Your task to perform on an android device: Add bose soundlink mini to the cart on walmart.com, then select checkout. Image 0: 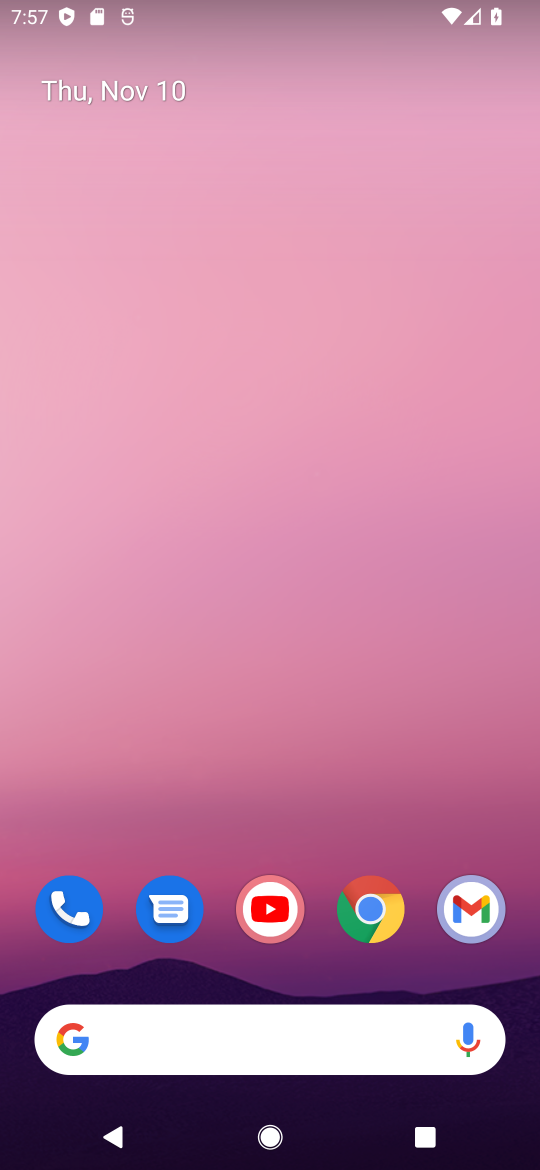
Step 0: drag from (284, 858) to (295, 343)
Your task to perform on an android device: Add bose soundlink mini to the cart on walmart.com, then select checkout. Image 1: 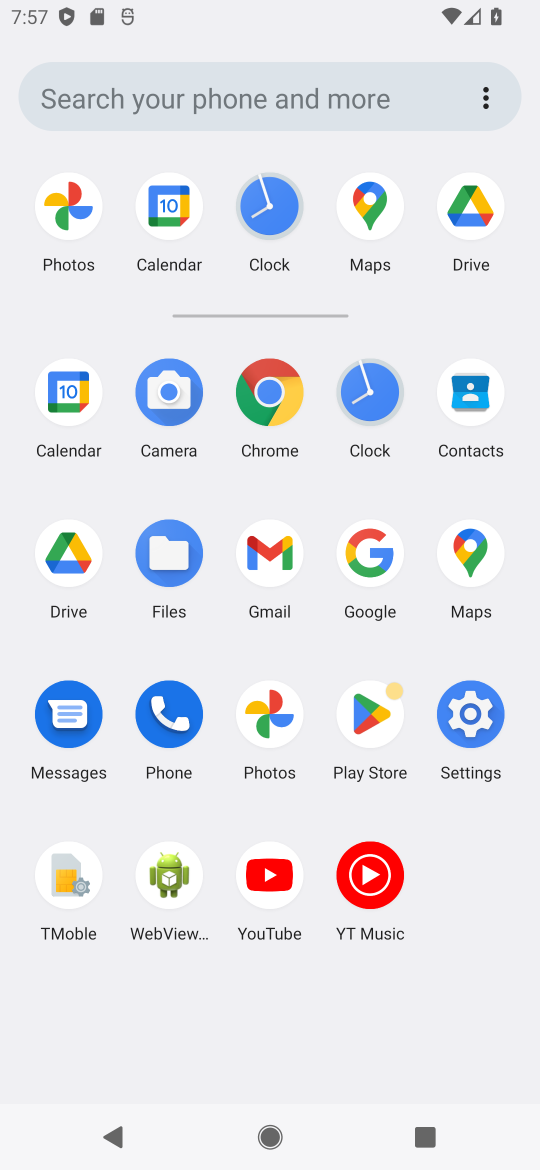
Step 1: click (362, 547)
Your task to perform on an android device: Add bose soundlink mini to the cart on walmart.com, then select checkout. Image 2: 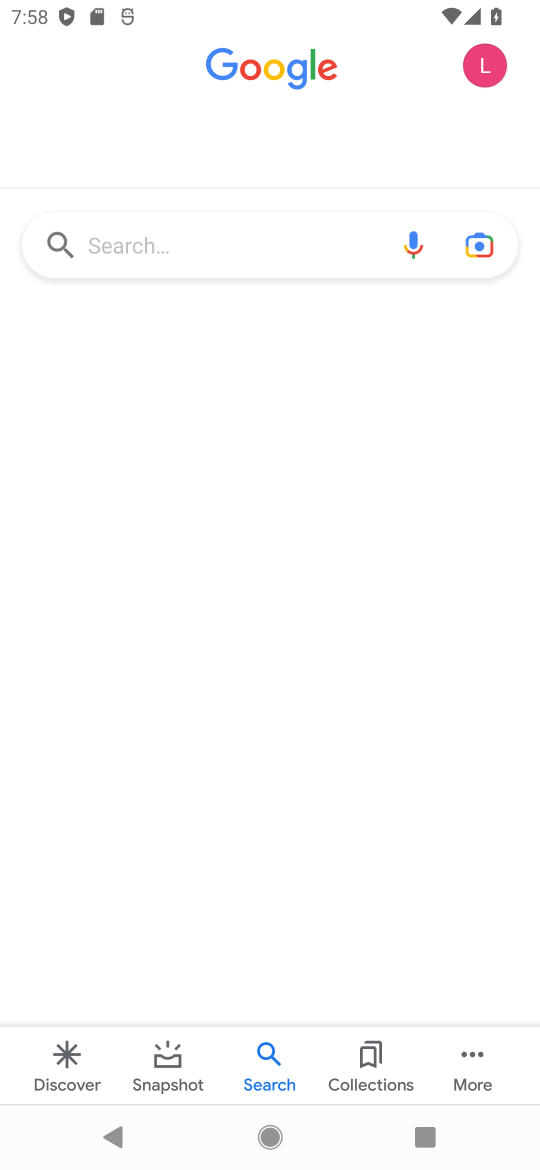
Step 2: click (232, 236)
Your task to perform on an android device: Add bose soundlink mini to the cart on walmart.com, then select checkout. Image 3: 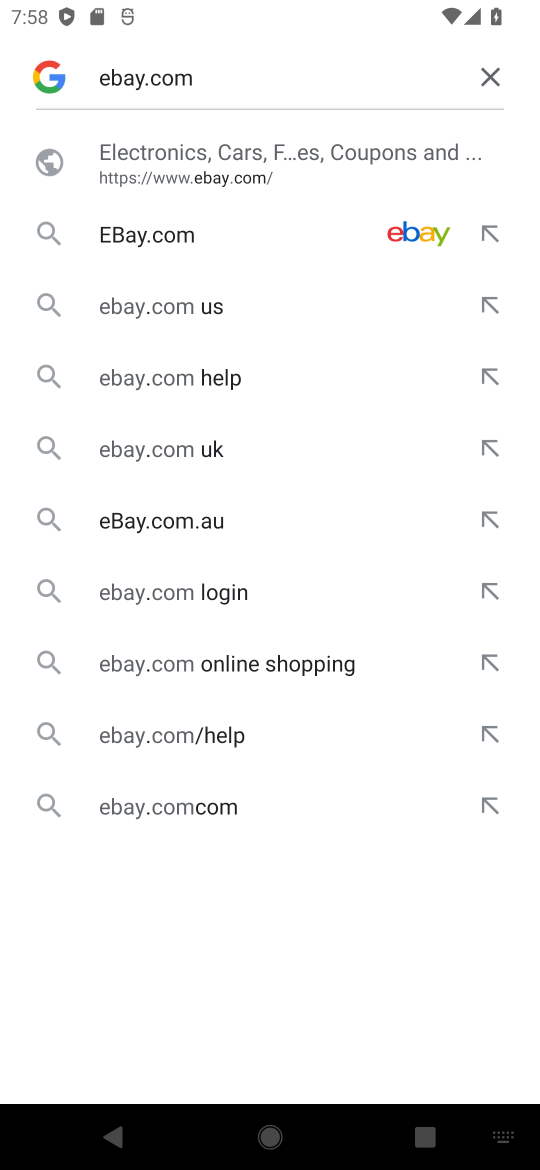
Step 3: type "walmart "
Your task to perform on an android device: Add bose soundlink mini to the cart on walmart.com, then select checkout. Image 4: 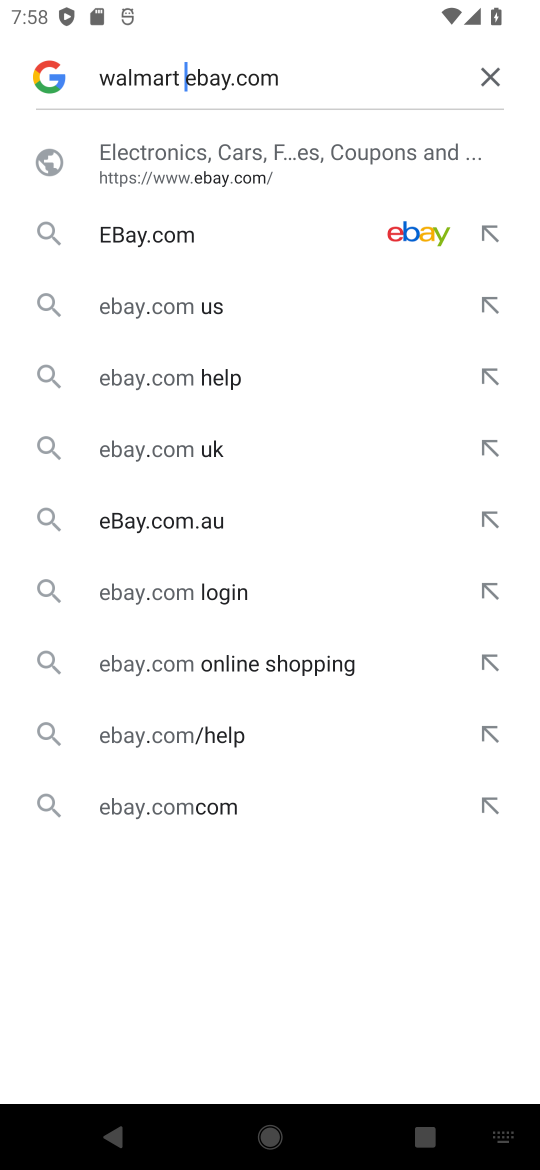
Step 4: click (506, 72)
Your task to perform on an android device: Add bose soundlink mini to the cart on walmart.com, then select checkout. Image 5: 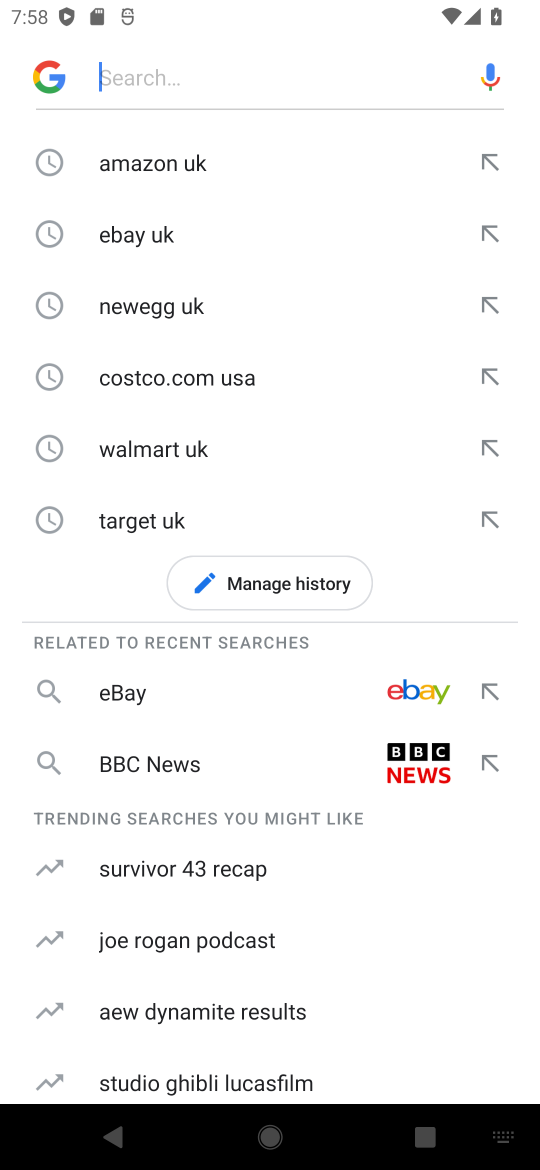
Step 5: click (209, 49)
Your task to perform on an android device: Add bose soundlink mini to the cart on walmart.com, then select checkout. Image 6: 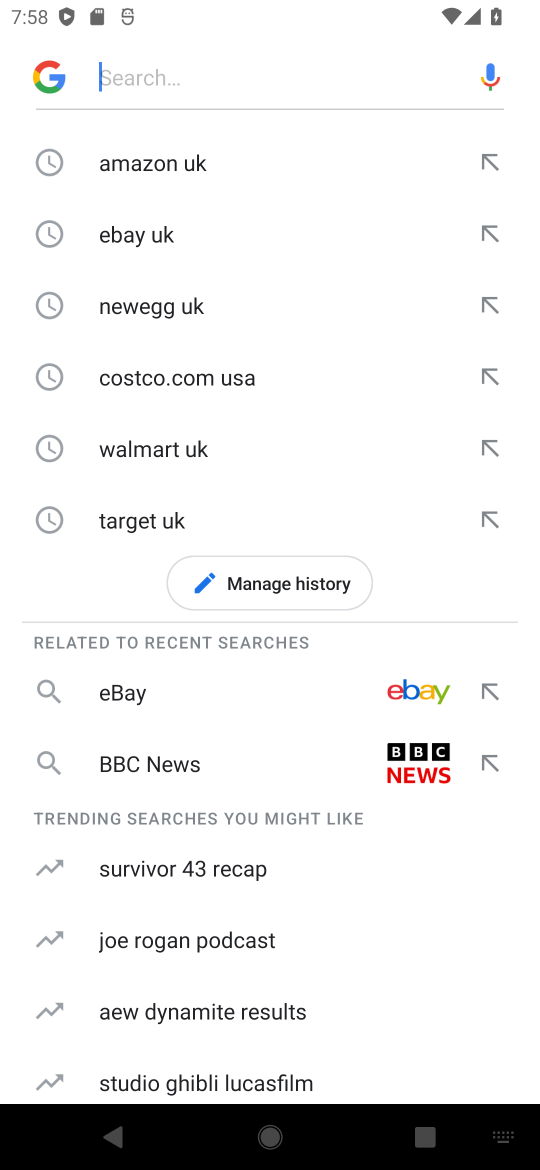
Step 6: type "walmart "
Your task to perform on an android device: Add bose soundlink mini to the cart on walmart.com, then select checkout. Image 7: 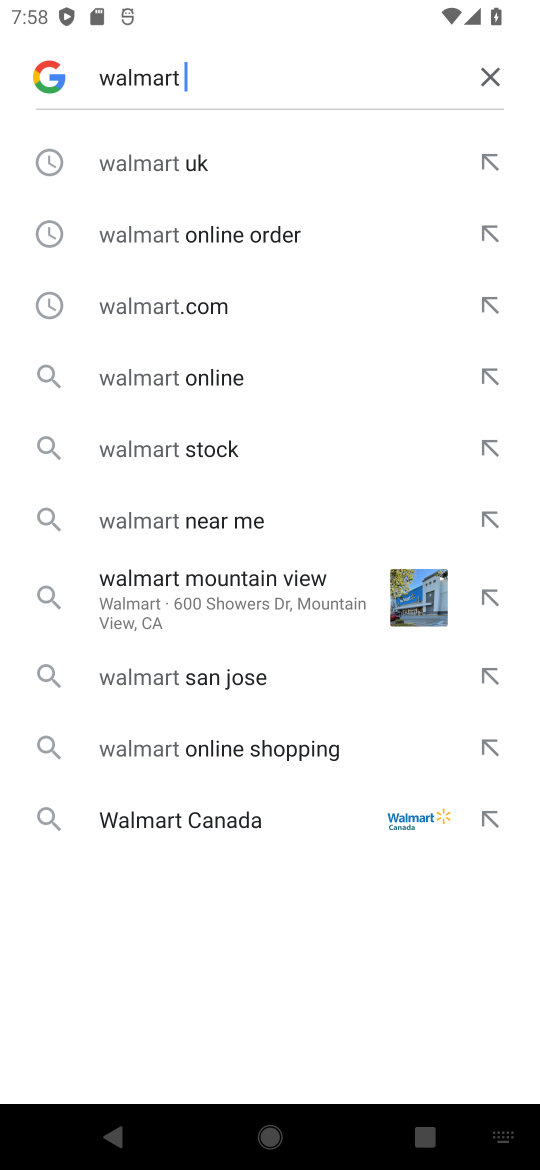
Step 7: click (142, 167)
Your task to perform on an android device: Add bose soundlink mini to the cart on walmart.com, then select checkout. Image 8: 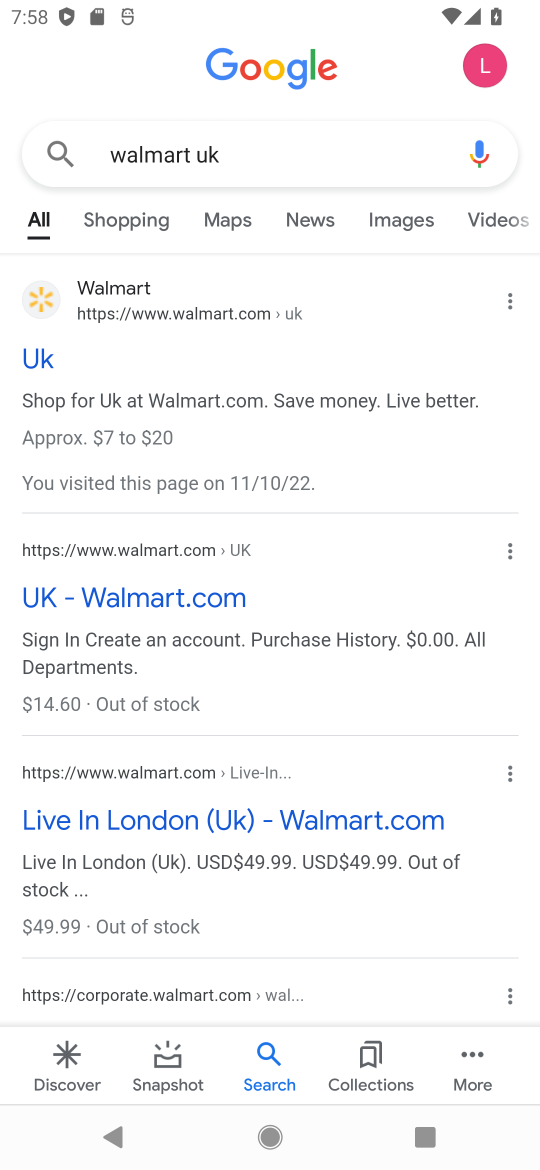
Step 8: click (25, 351)
Your task to perform on an android device: Add bose soundlink mini to the cart on walmart.com, then select checkout. Image 9: 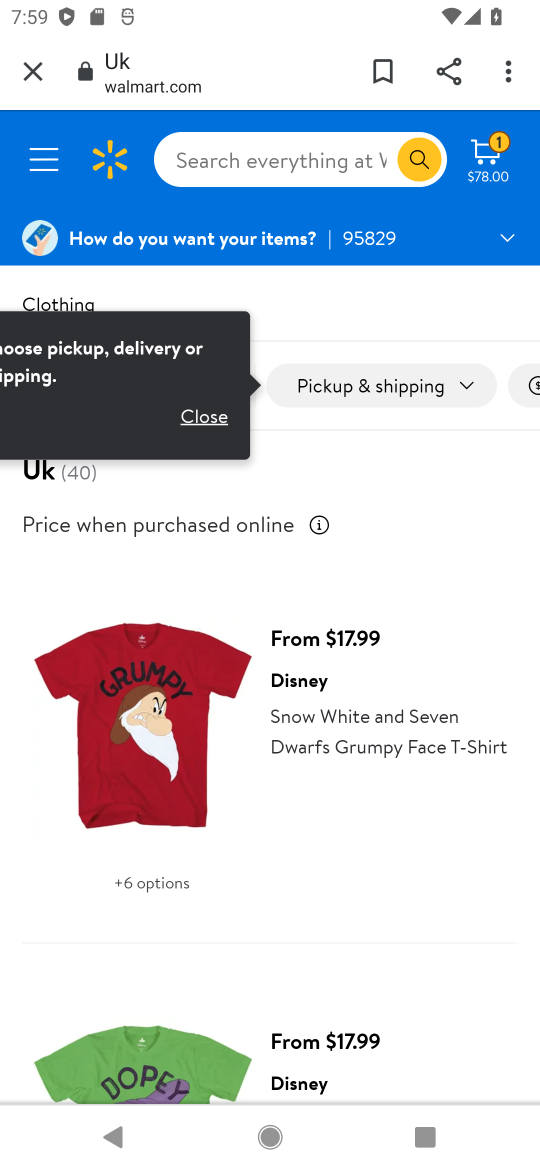
Step 9: click (262, 158)
Your task to perform on an android device: Add bose soundlink mini to the cart on walmart.com, then select checkout. Image 10: 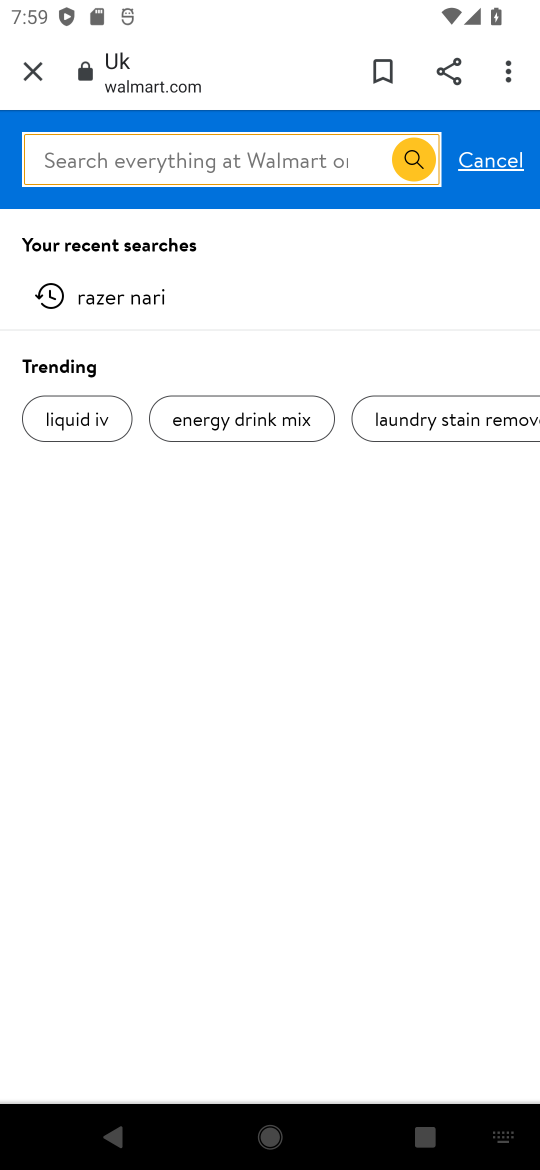
Step 10: click (211, 147)
Your task to perform on an android device: Add bose soundlink mini to the cart on walmart.com, then select checkout. Image 11: 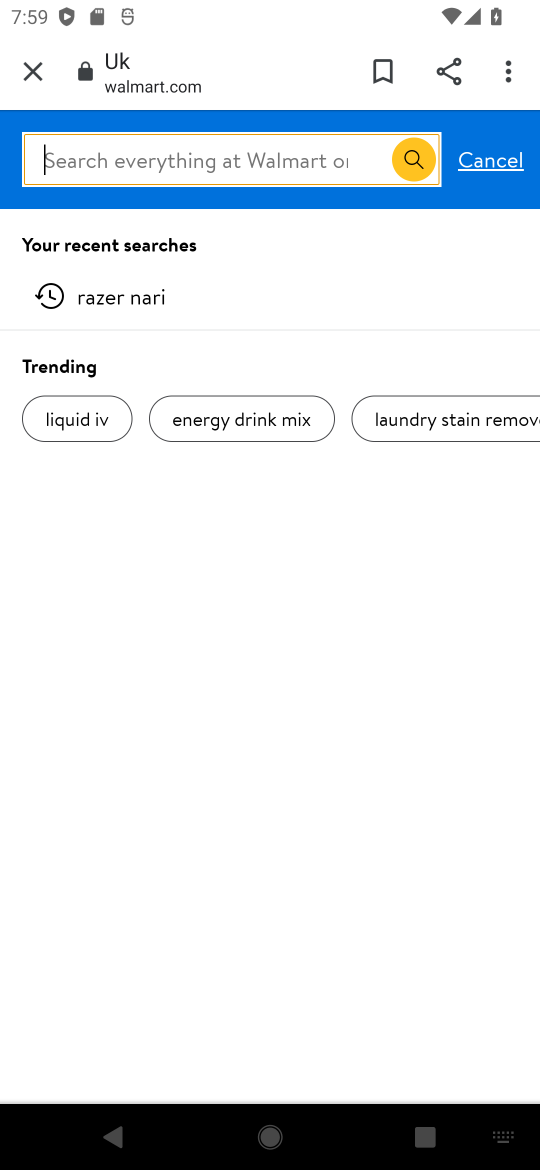
Step 11: type " bose soundlink mini  "
Your task to perform on an android device: Add bose soundlink mini to the cart on walmart.com, then select checkout. Image 12: 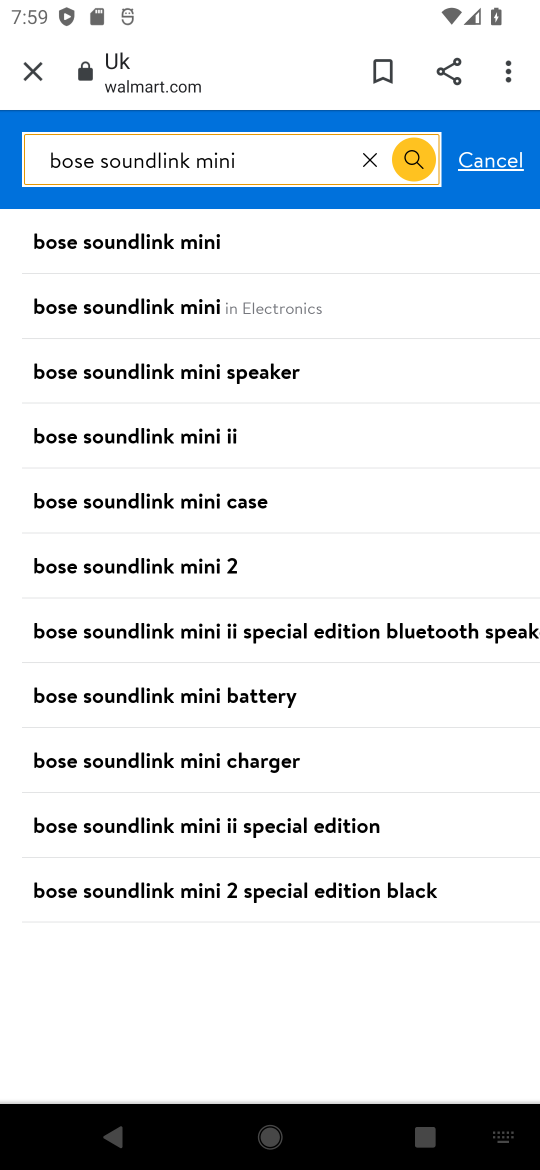
Step 12: click (244, 222)
Your task to perform on an android device: Add bose soundlink mini to the cart on walmart.com, then select checkout. Image 13: 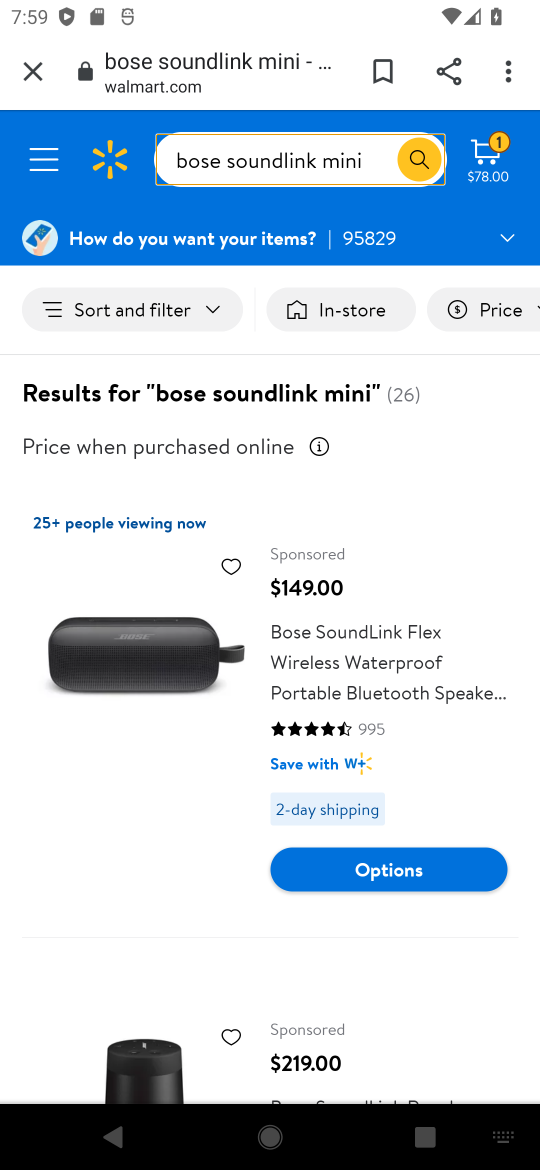
Step 13: drag from (340, 752) to (333, 354)
Your task to perform on an android device: Add bose soundlink mini to the cart on walmart.com, then select checkout. Image 14: 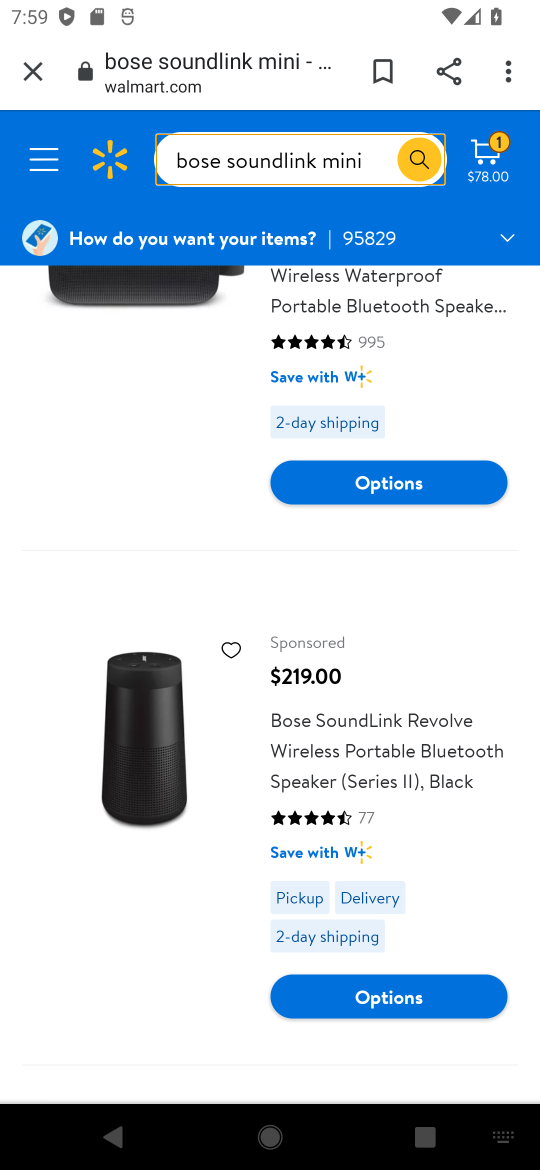
Step 14: drag from (361, 969) to (340, 712)
Your task to perform on an android device: Add bose soundlink mini to the cart on walmart.com, then select checkout. Image 15: 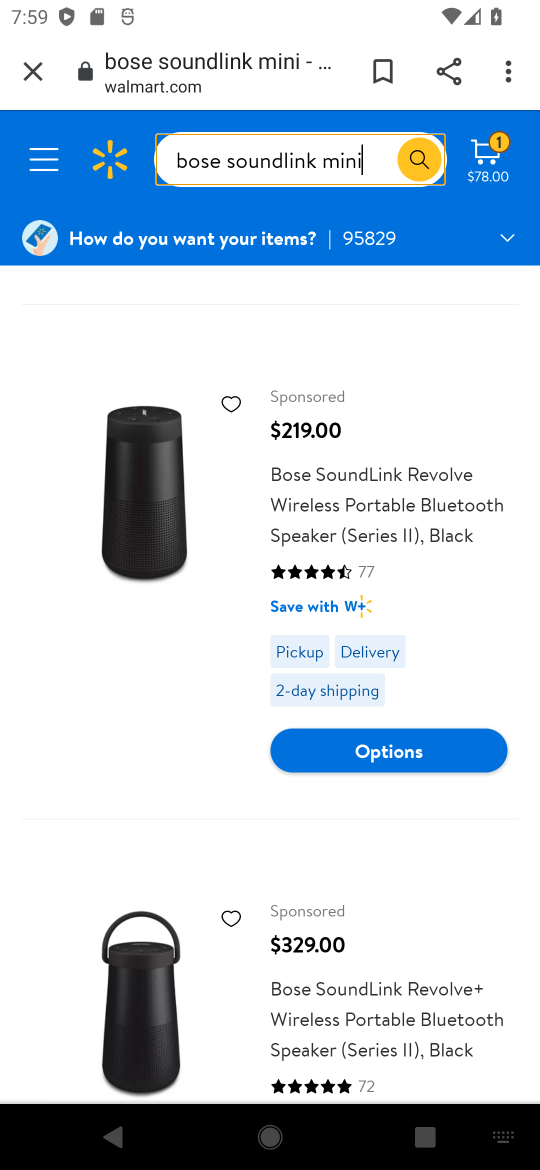
Step 15: click (356, 449)
Your task to perform on an android device: Add bose soundlink mini to the cart on walmart.com, then select checkout. Image 16: 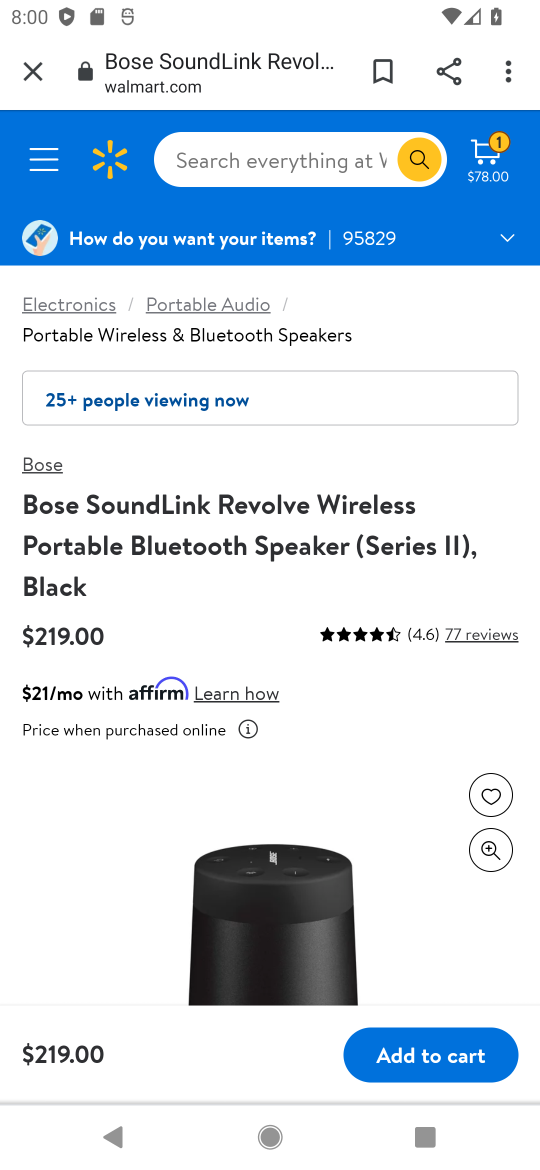
Step 16: click (439, 1039)
Your task to perform on an android device: Add bose soundlink mini to the cart on walmart.com, then select checkout. Image 17: 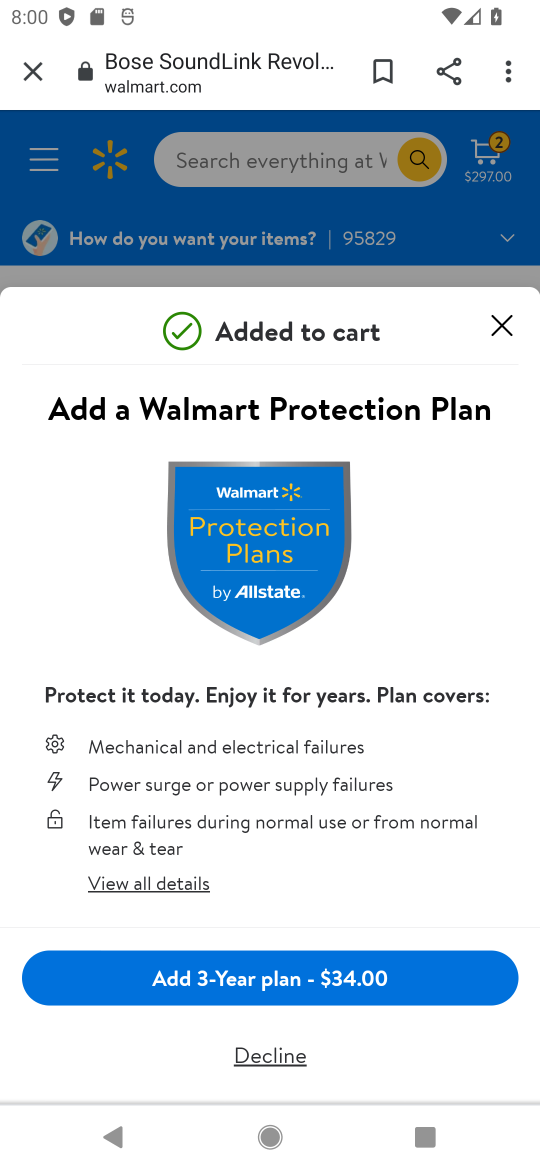
Step 17: task complete